Your task to perform on an android device: move a message to another label in the gmail app Image 0: 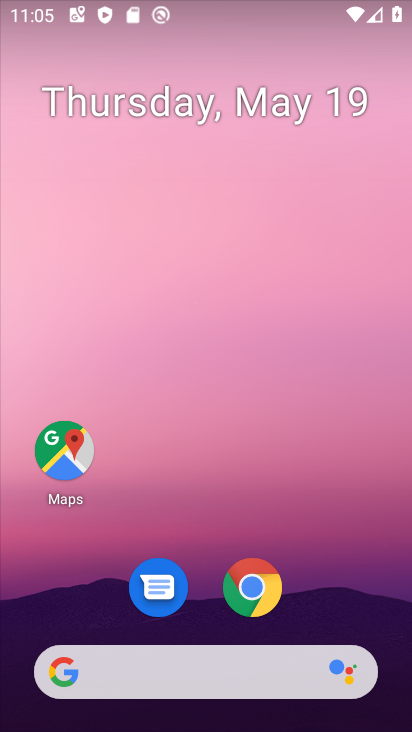
Step 0: drag from (231, 680) to (222, 274)
Your task to perform on an android device: move a message to another label in the gmail app Image 1: 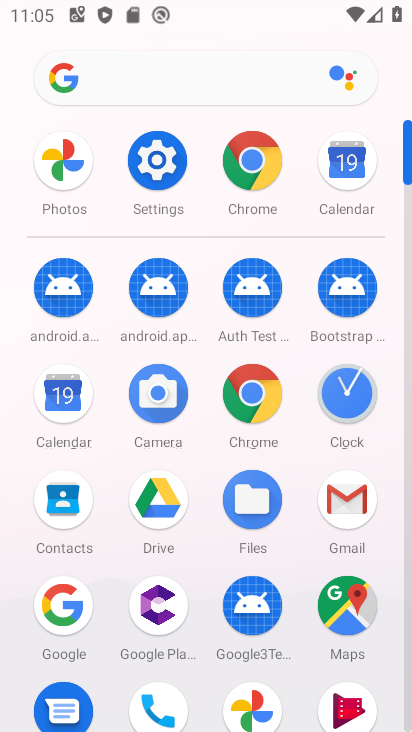
Step 1: click (355, 525)
Your task to perform on an android device: move a message to another label in the gmail app Image 2: 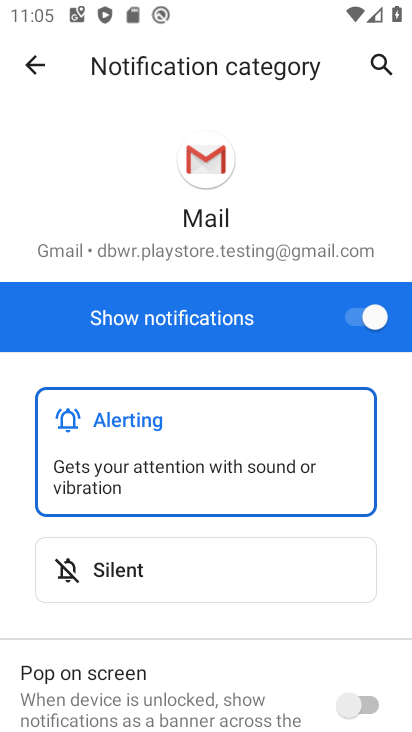
Step 2: click (25, 71)
Your task to perform on an android device: move a message to another label in the gmail app Image 3: 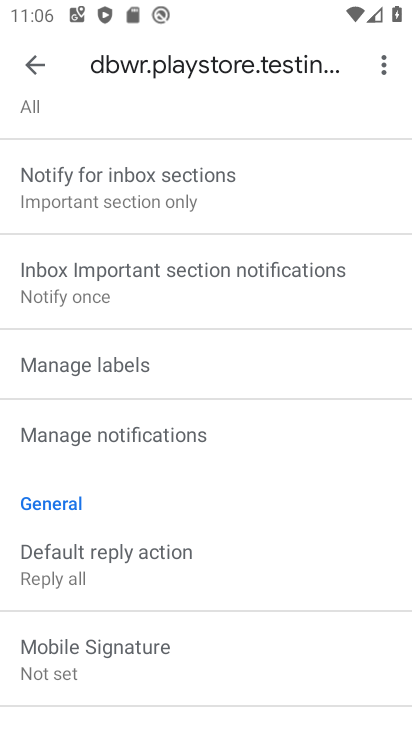
Step 3: click (26, 68)
Your task to perform on an android device: move a message to another label in the gmail app Image 4: 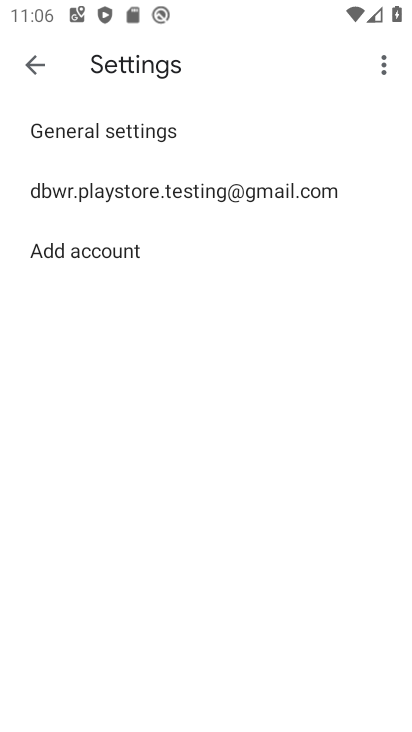
Step 4: click (26, 68)
Your task to perform on an android device: move a message to another label in the gmail app Image 5: 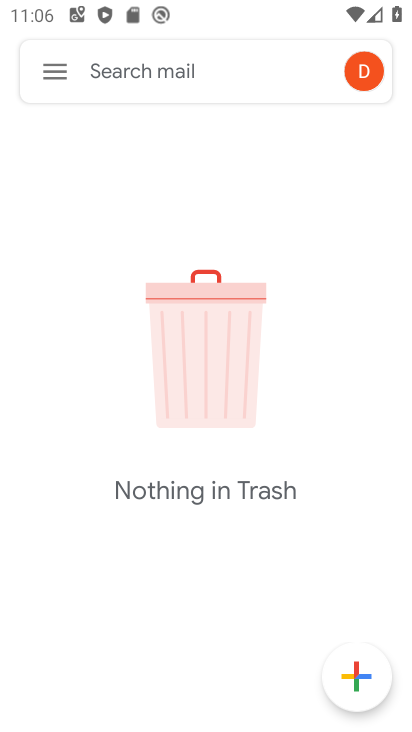
Step 5: click (31, 76)
Your task to perform on an android device: move a message to another label in the gmail app Image 6: 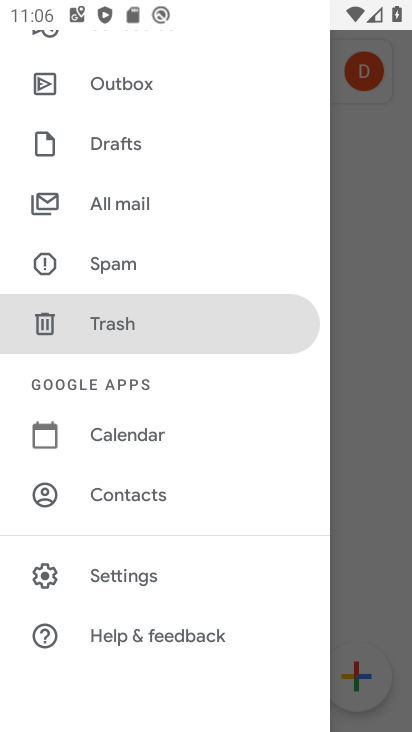
Step 6: click (118, 194)
Your task to perform on an android device: move a message to another label in the gmail app Image 7: 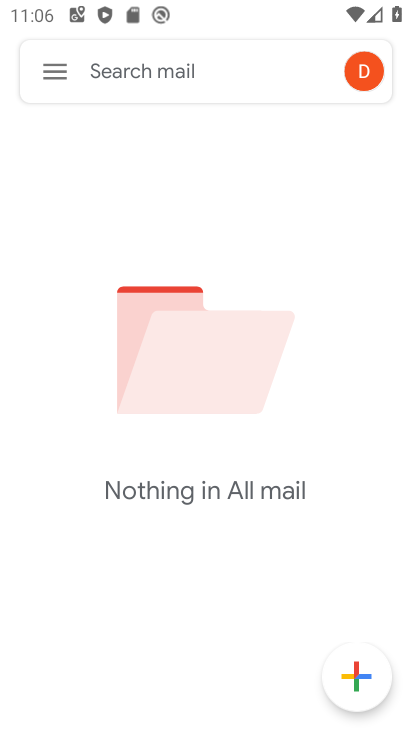
Step 7: task complete